Your task to perform on an android device: delete location history Image 0: 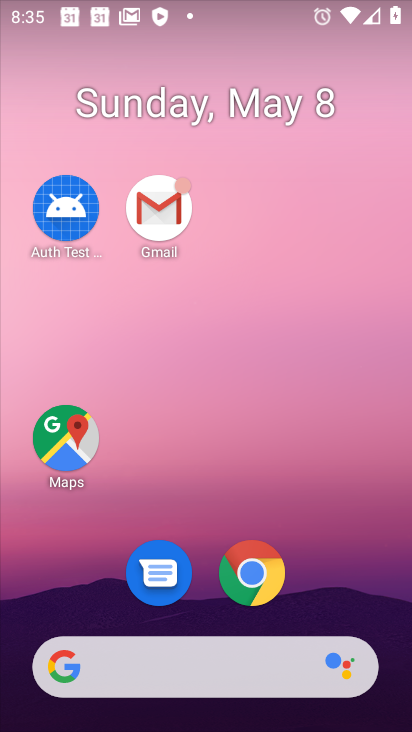
Step 0: click (73, 430)
Your task to perform on an android device: delete location history Image 1: 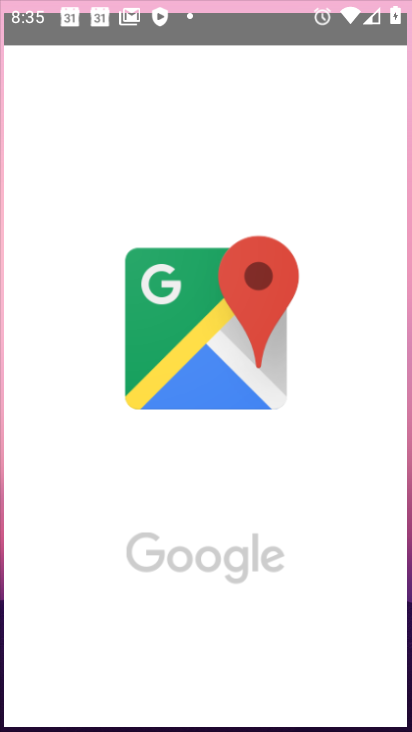
Step 1: click (73, 429)
Your task to perform on an android device: delete location history Image 2: 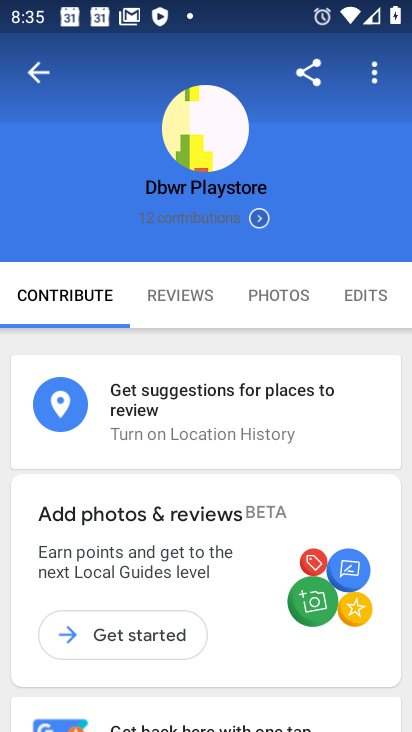
Step 2: click (31, 70)
Your task to perform on an android device: delete location history Image 3: 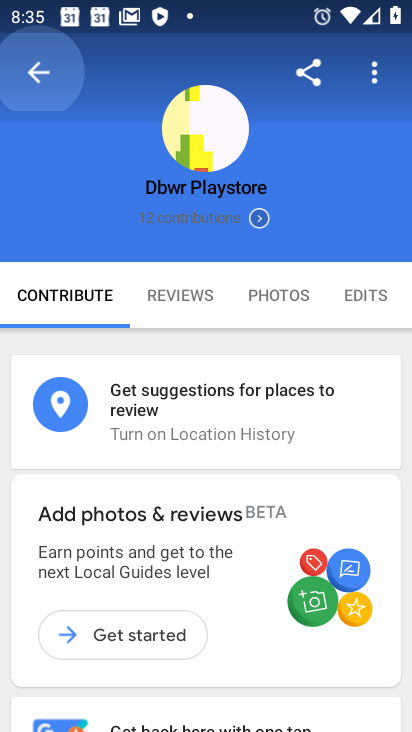
Step 3: click (31, 70)
Your task to perform on an android device: delete location history Image 4: 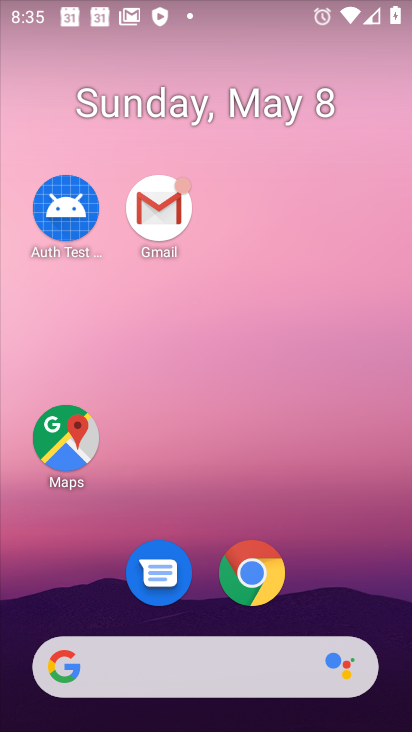
Step 4: click (69, 449)
Your task to perform on an android device: delete location history Image 5: 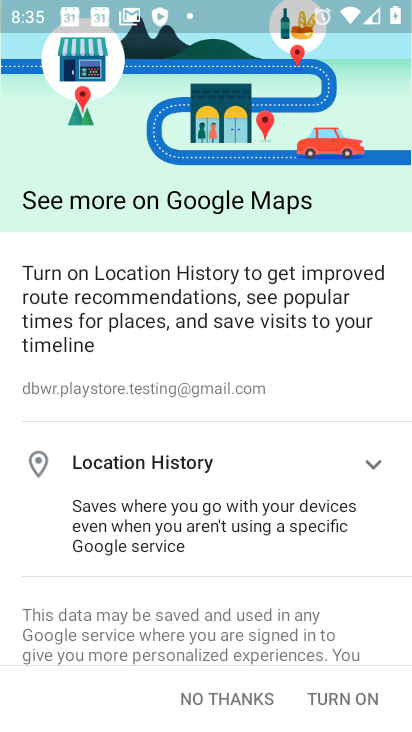
Step 5: click (336, 694)
Your task to perform on an android device: delete location history Image 6: 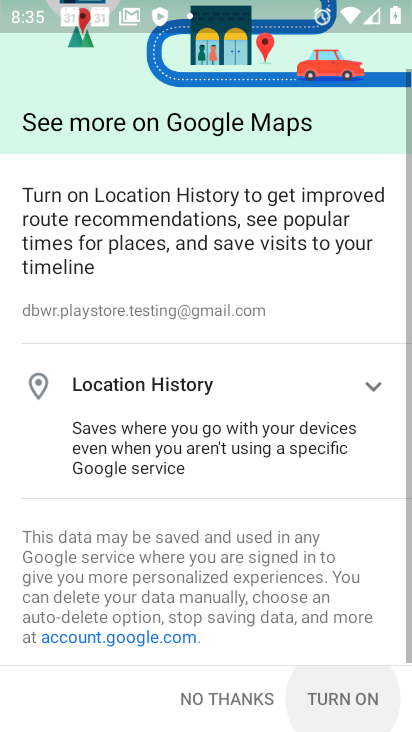
Step 6: click (335, 694)
Your task to perform on an android device: delete location history Image 7: 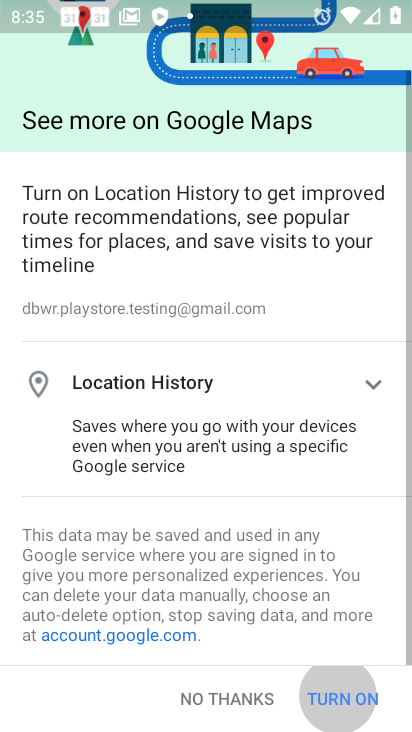
Step 7: click (335, 694)
Your task to perform on an android device: delete location history Image 8: 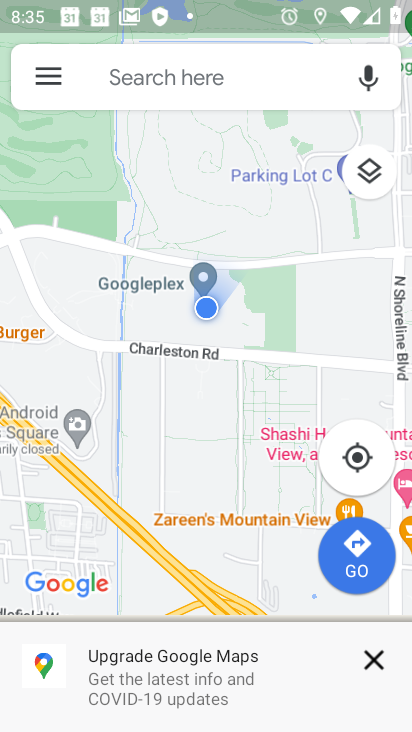
Step 8: click (43, 81)
Your task to perform on an android device: delete location history Image 9: 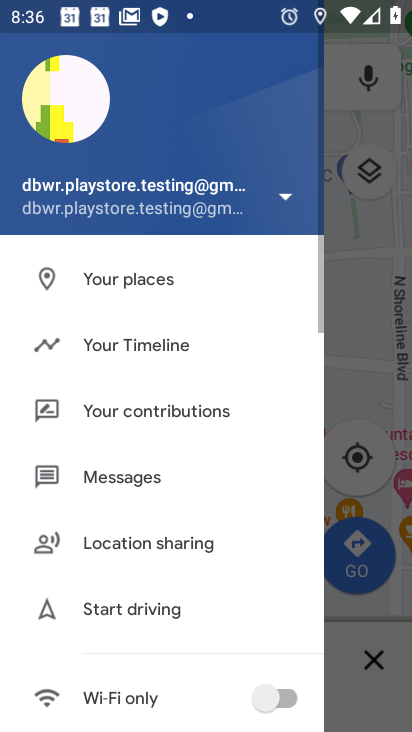
Step 9: click (145, 344)
Your task to perform on an android device: delete location history Image 10: 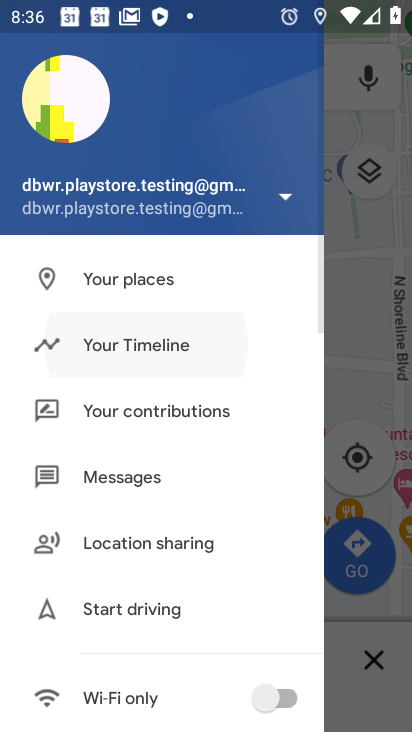
Step 10: click (145, 344)
Your task to perform on an android device: delete location history Image 11: 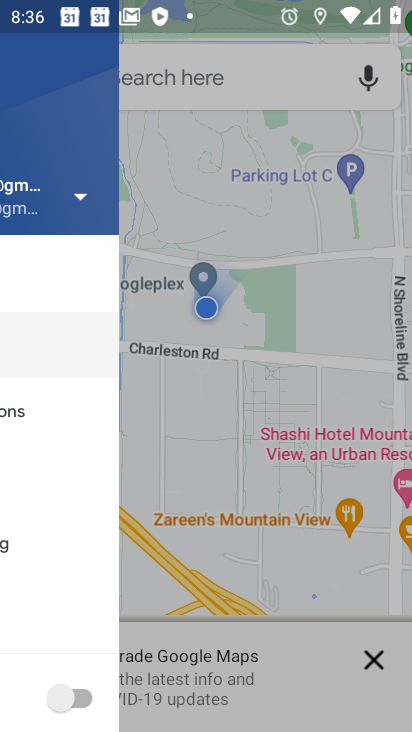
Step 11: click (146, 345)
Your task to perform on an android device: delete location history Image 12: 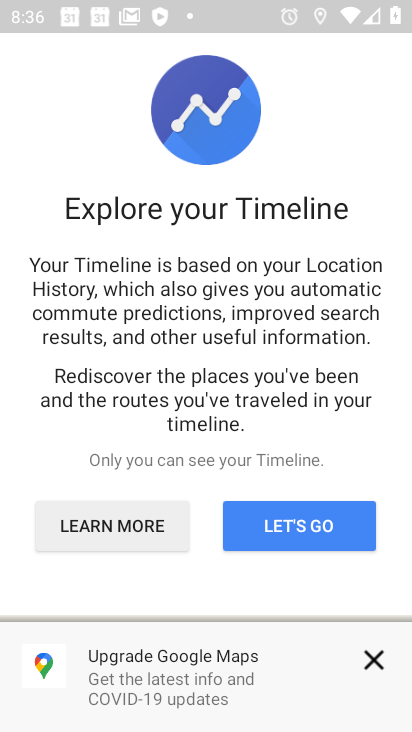
Step 12: click (303, 526)
Your task to perform on an android device: delete location history Image 13: 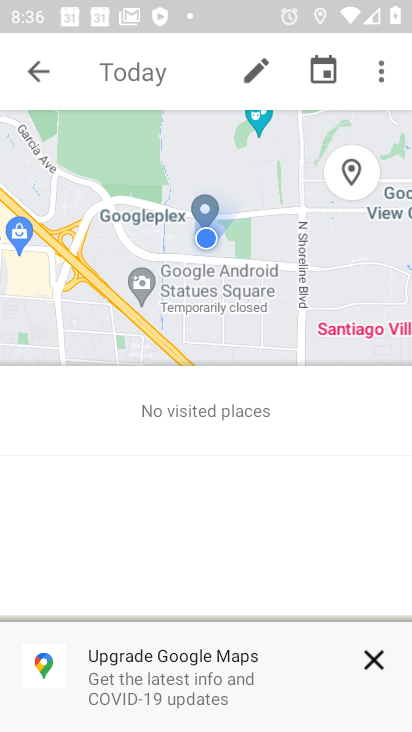
Step 13: drag from (380, 73) to (337, 235)
Your task to perform on an android device: delete location history Image 14: 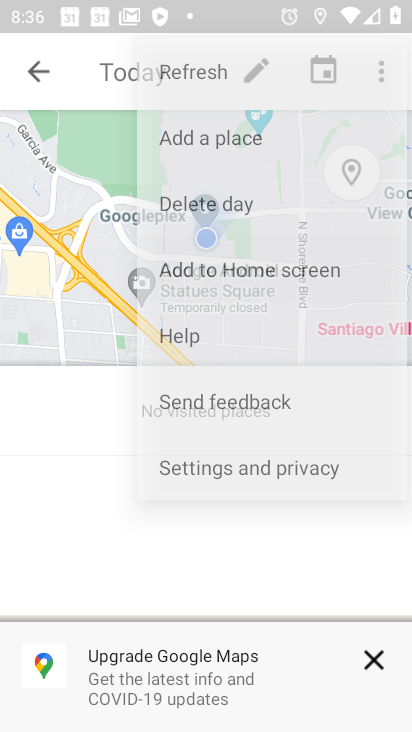
Step 14: click (383, 82)
Your task to perform on an android device: delete location history Image 15: 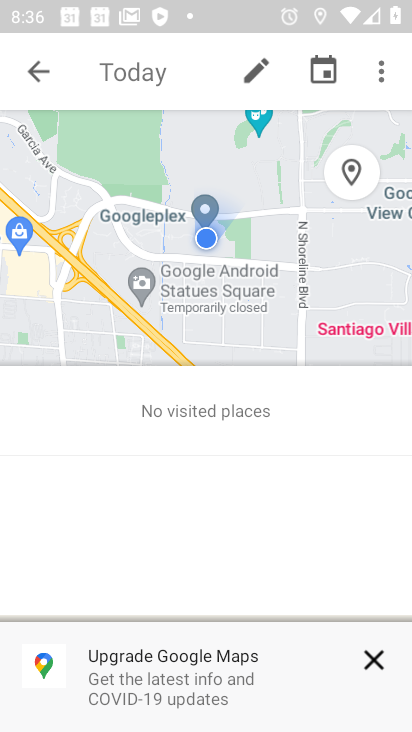
Step 15: click (376, 69)
Your task to perform on an android device: delete location history Image 16: 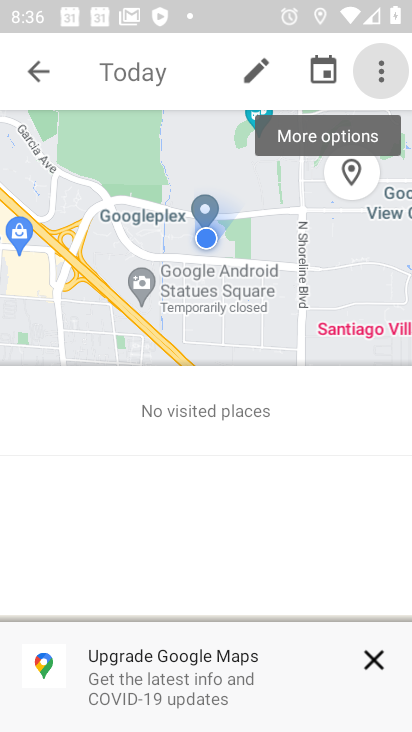
Step 16: click (376, 70)
Your task to perform on an android device: delete location history Image 17: 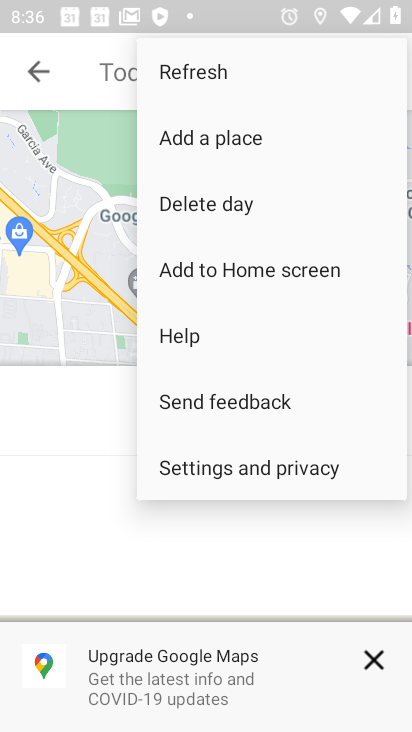
Step 17: click (229, 467)
Your task to perform on an android device: delete location history Image 18: 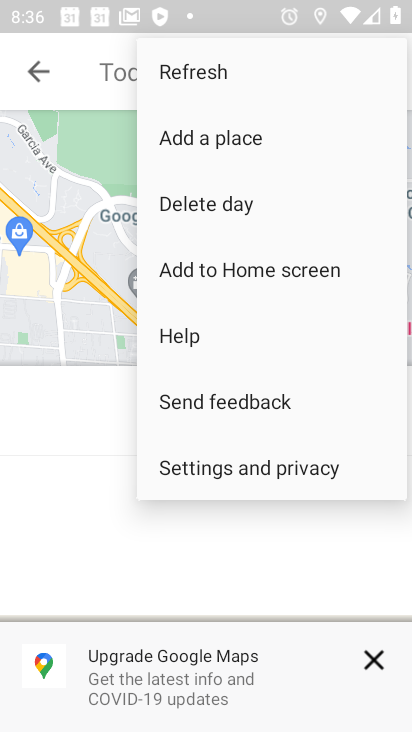
Step 18: click (229, 469)
Your task to perform on an android device: delete location history Image 19: 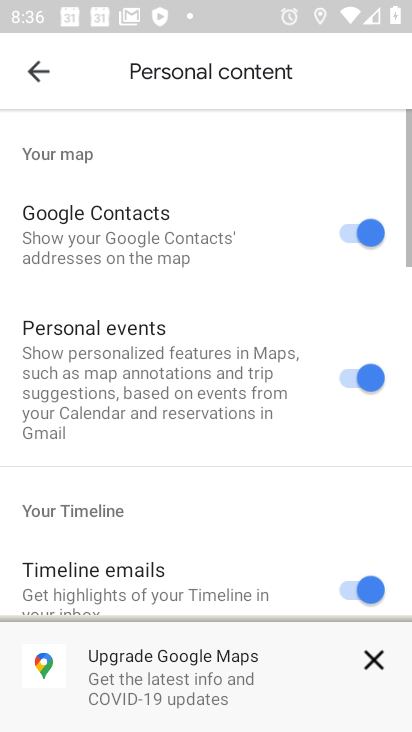
Step 19: click (232, 475)
Your task to perform on an android device: delete location history Image 20: 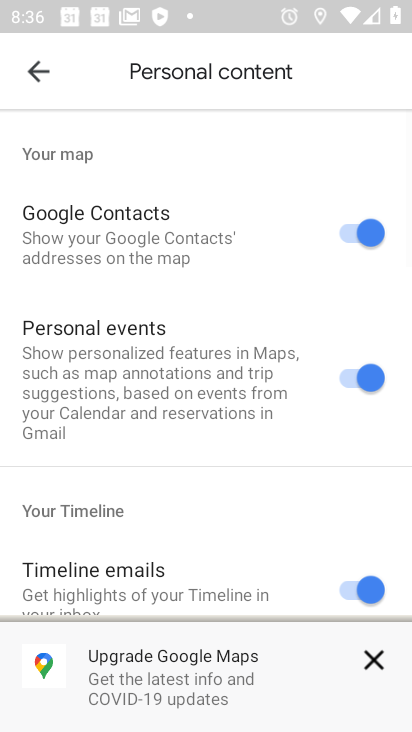
Step 20: drag from (172, 490) to (121, 217)
Your task to perform on an android device: delete location history Image 21: 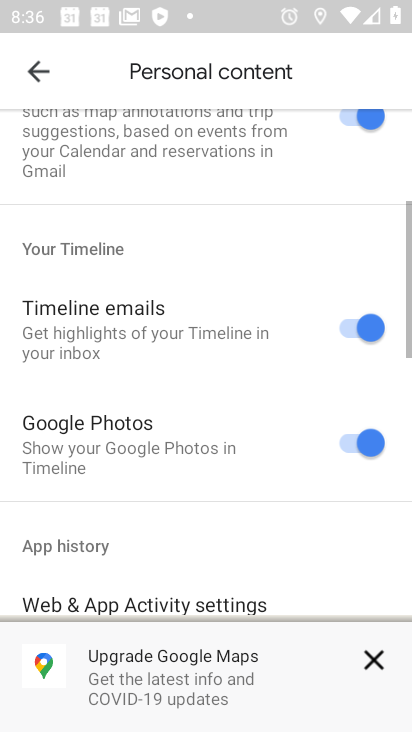
Step 21: drag from (168, 459) to (169, 125)
Your task to perform on an android device: delete location history Image 22: 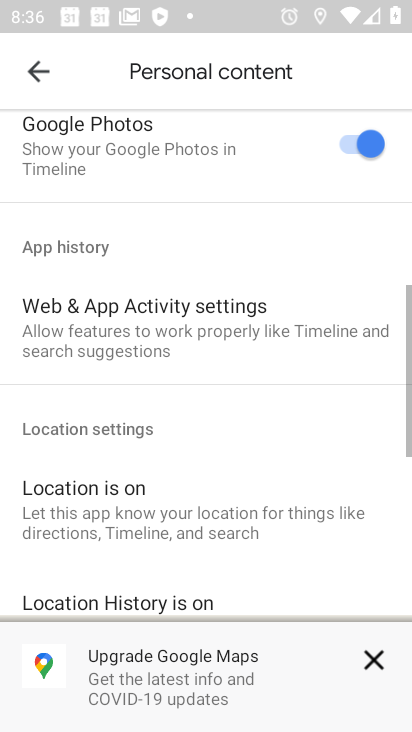
Step 22: drag from (199, 467) to (246, 48)
Your task to perform on an android device: delete location history Image 23: 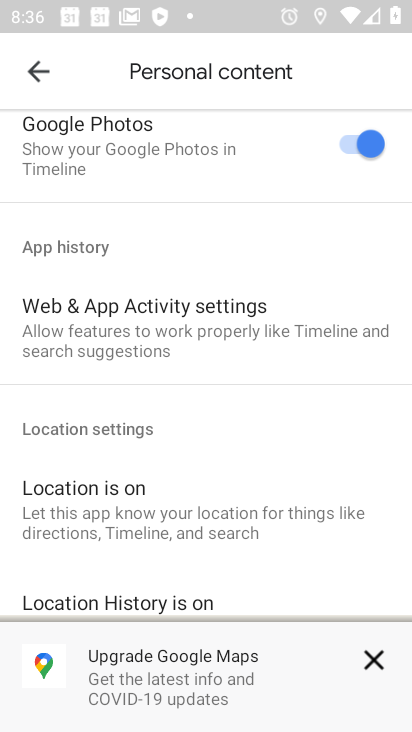
Step 23: drag from (196, 254) to (196, 110)
Your task to perform on an android device: delete location history Image 24: 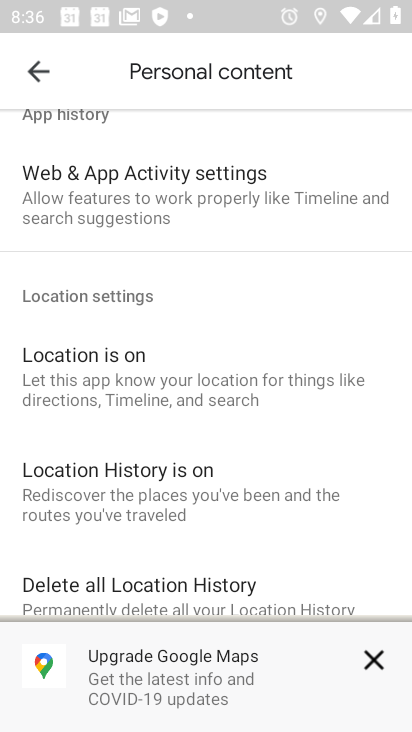
Step 24: click (133, 495)
Your task to perform on an android device: delete location history Image 25: 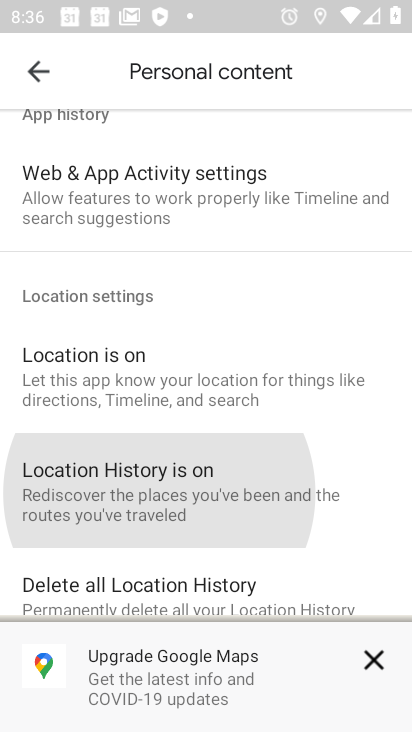
Step 25: click (133, 495)
Your task to perform on an android device: delete location history Image 26: 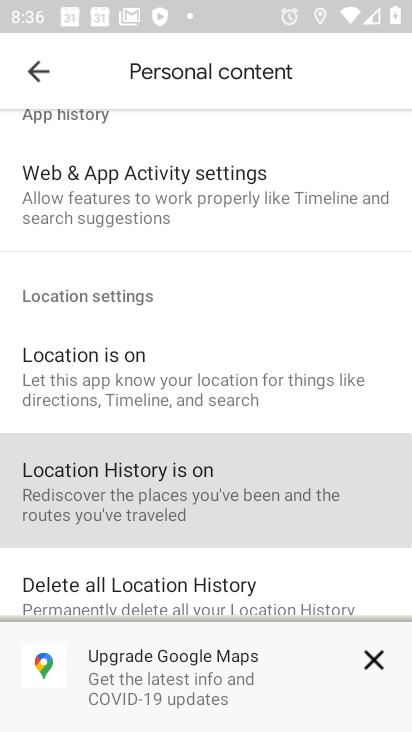
Step 26: click (133, 495)
Your task to perform on an android device: delete location history Image 27: 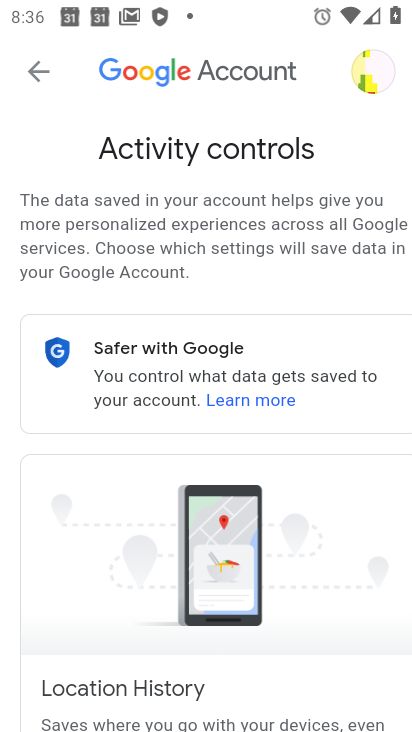
Step 27: drag from (243, 516) to (240, 128)
Your task to perform on an android device: delete location history Image 28: 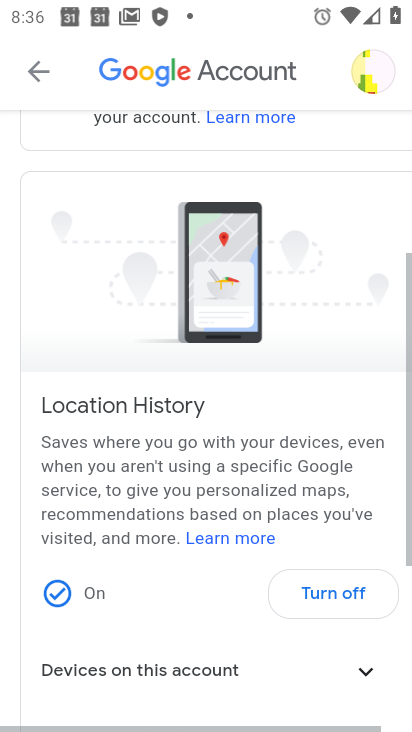
Step 28: drag from (315, 509) to (283, 122)
Your task to perform on an android device: delete location history Image 29: 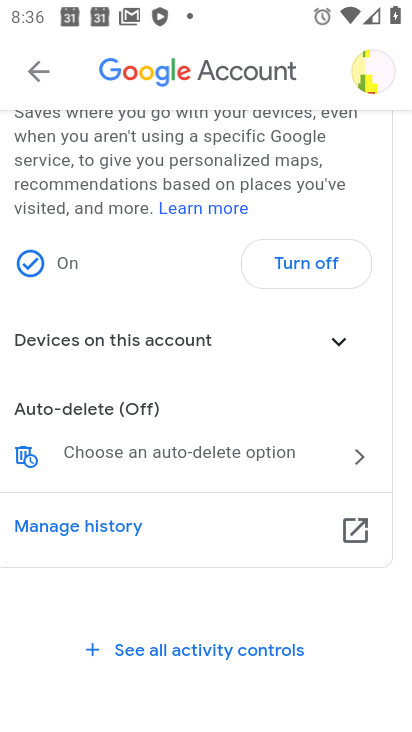
Step 29: click (314, 263)
Your task to perform on an android device: delete location history Image 30: 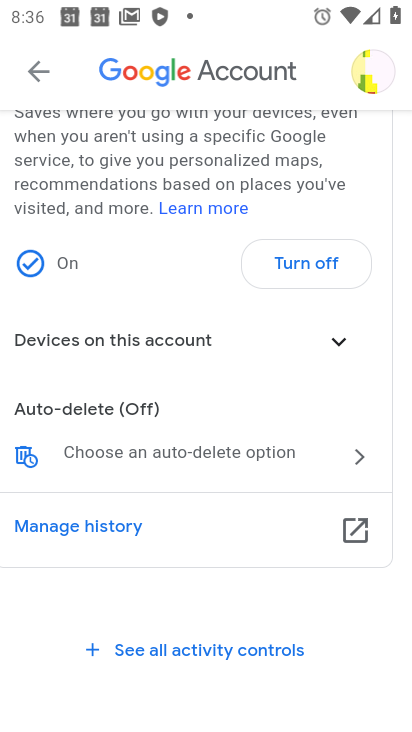
Step 30: click (314, 263)
Your task to perform on an android device: delete location history Image 31: 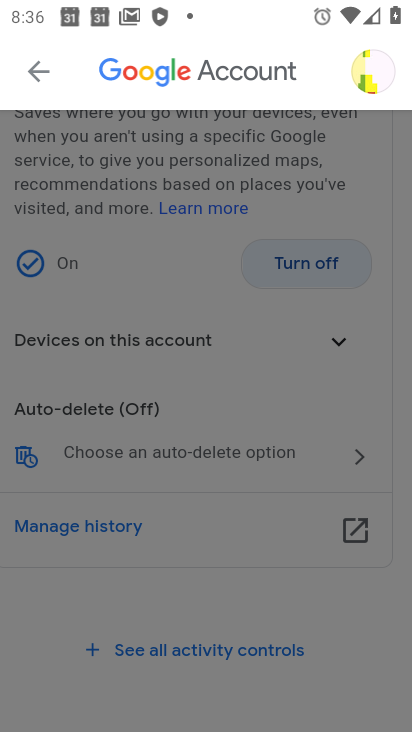
Step 31: click (314, 253)
Your task to perform on an android device: delete location history Image 32: 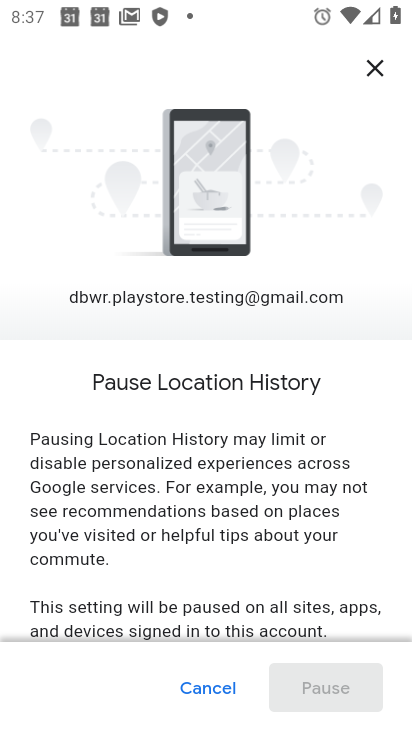
Step 32: click (372, 74)
Your task to perform on an android device: delete location history Image 33: 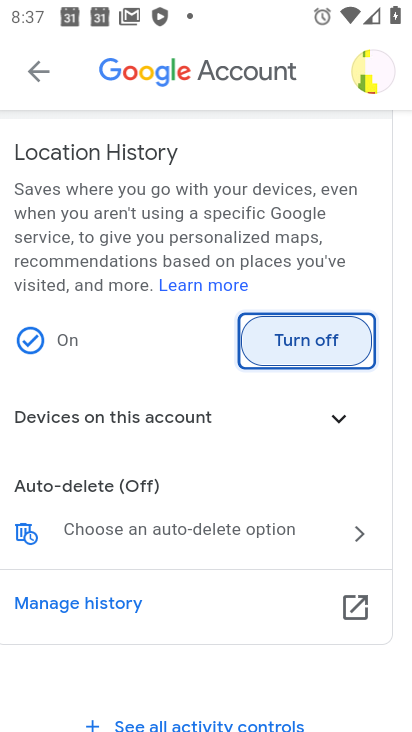
Step 33: task complete